Your task to perform on an android device: turn on notifications settings in the gmail app Image 0: 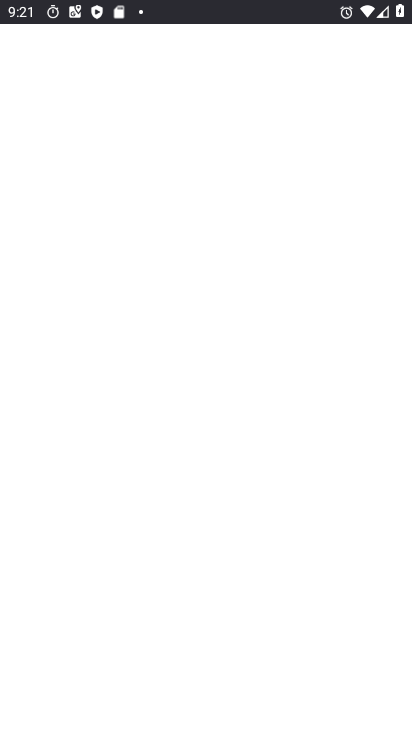
Step 0: drag from (347, 562) to (357, 5)
Your task to perform on an android device: turn on notifications settings in the gmail app Image 1: 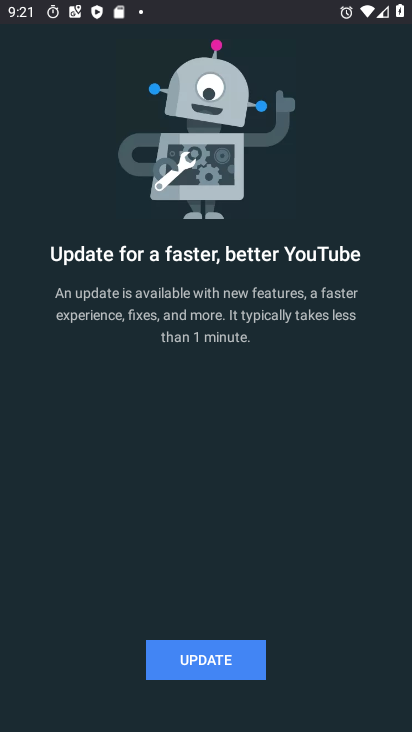
Step 1: press home button
Your task to perform on an android device: turn on notifications settings in the gmail app Image 2: 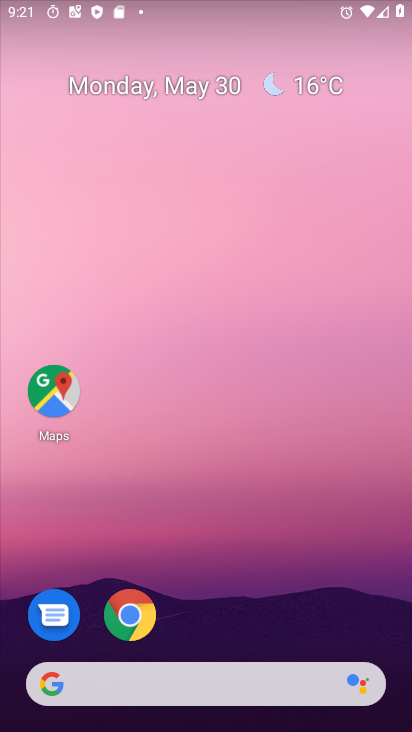
Step 2: drag from (283, 583) to (314, 104)
Your task to perform on an android device: turn on notifications settings in the gmail app Image 3: 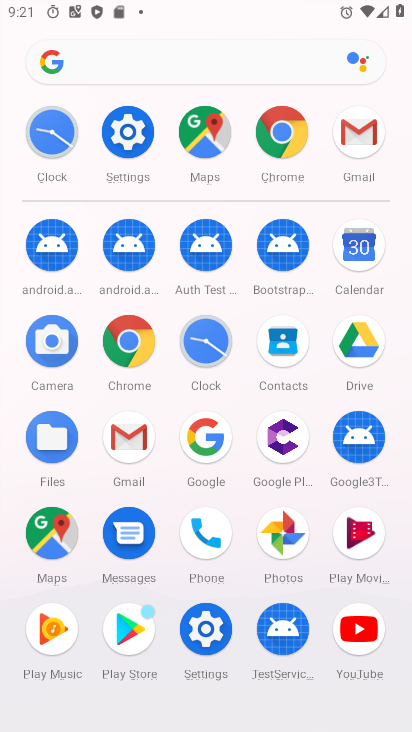
Step 3: click (364, 146)
Your task to perform on an android device: turn on notifications settings in the gmail app Image 4: 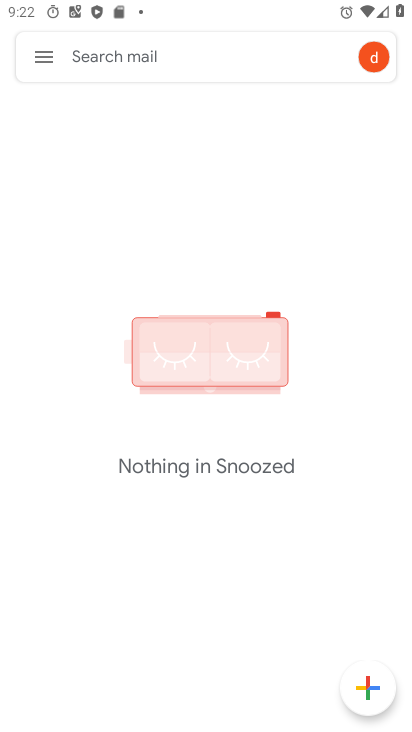
Step 4: click (39, 65)
Your task to perform on an android device: turn on notifications settings in the gmail app Image 5: 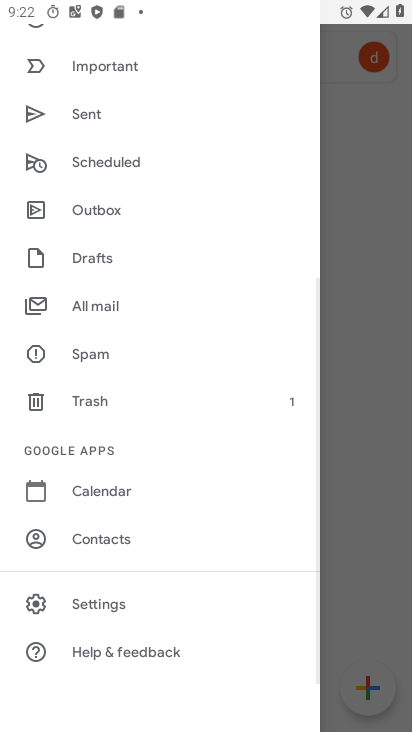
Step 5: drag from (135, 589) to (214, 233)
Your task to perform on an android device: turn on notifications settings in the gmail app Image 6: 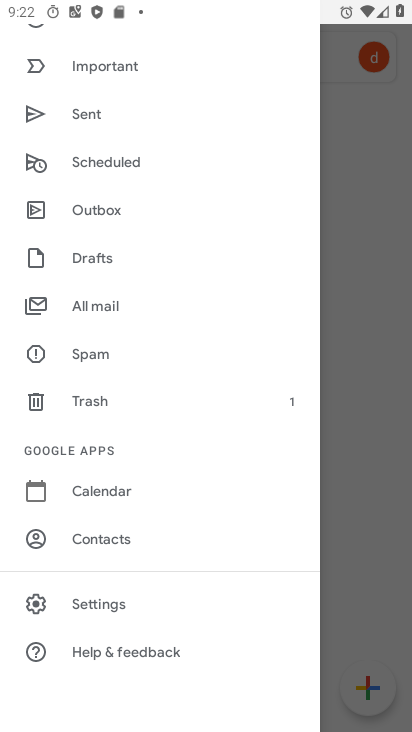
Step 6: click (87, 606)
Your task to perform on an android device: turn on notifications settings in the gmail app Image 7: 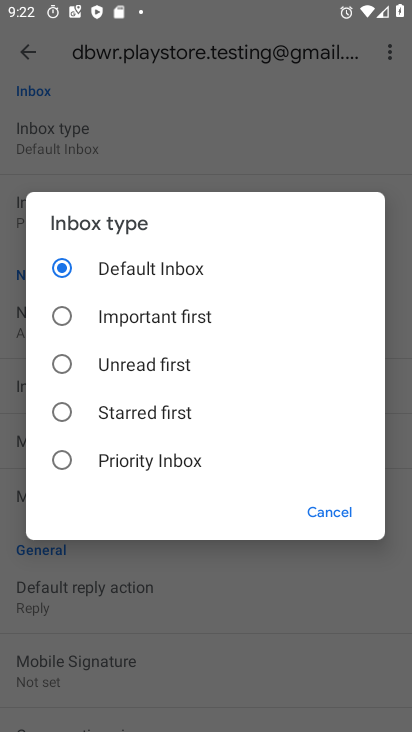
Step 7: click (331, 507)
Your task to perform on an android device: turn on notifications settings in the gmail app Image 8: 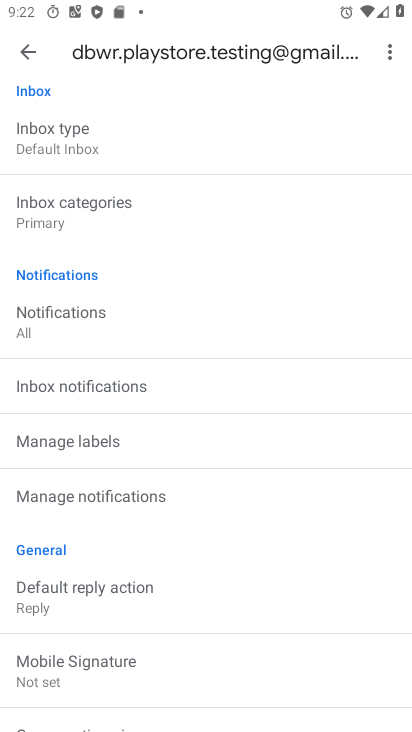
Step 8: click (87, 327)
Your task to perform on an android device: turn on notifications settings in the gmail app Image 9: 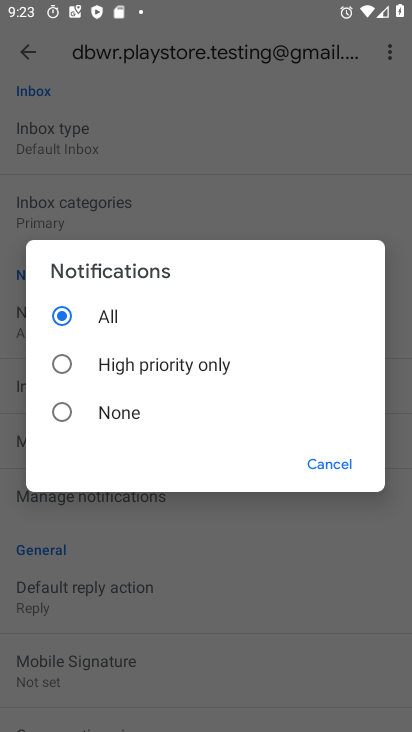
Step 9: click (334, 468)
Your task to perform on an android device: turn on notifications settings in the gmail app Image 10: 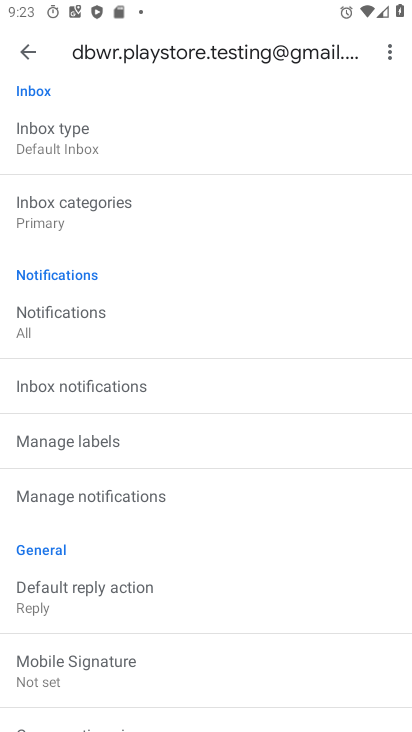
Step 10: task complete